Your task to perform on an android device: Go to Maps Image 0: 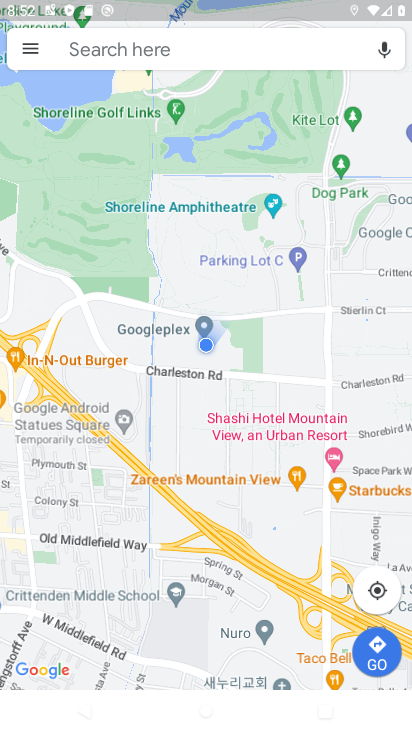
Step 0: press home button
Your task to perform on an android device: Go to Maps Image 1: 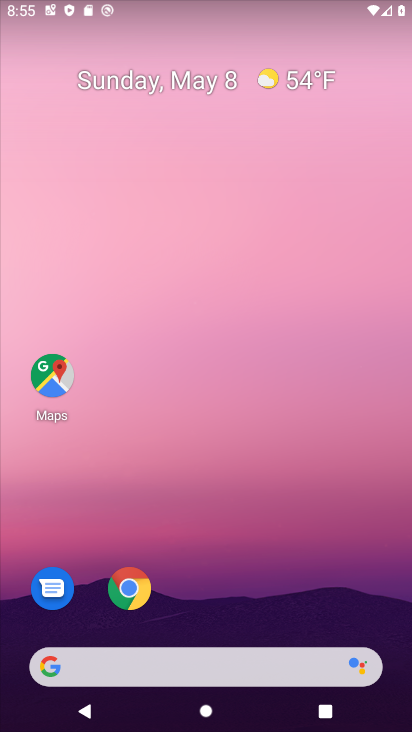
Step 1: click (39, 377)
Your task to perform on an android device: Go to Maps Image 2: 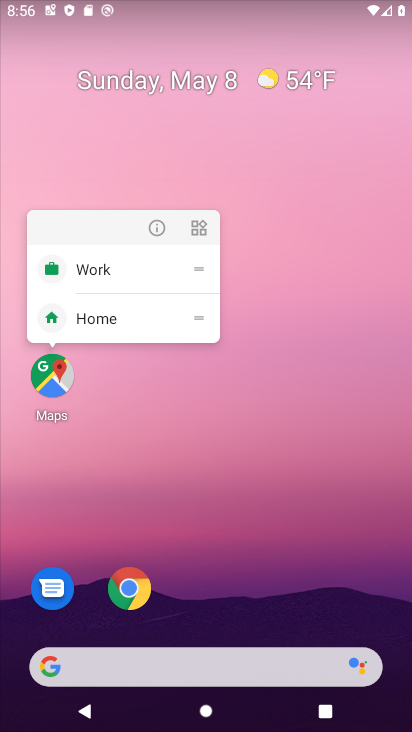
Step 2: click (160, 231)
Your task to perform on an android device: Go to Maps Image 3: 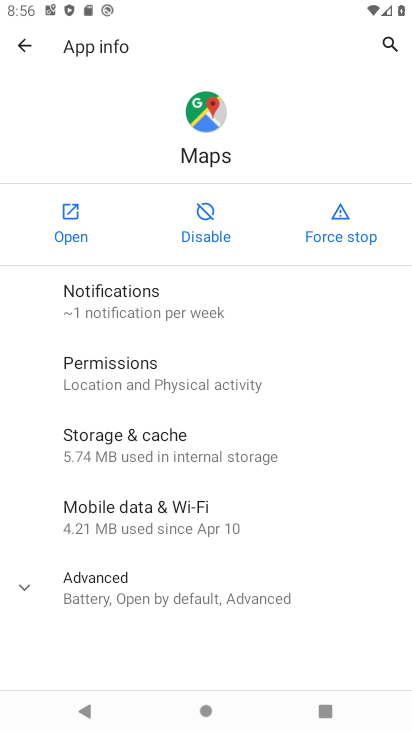
Step 3: click (69, 221)
Your task to perform on an android device: Go to Maps Image 4: 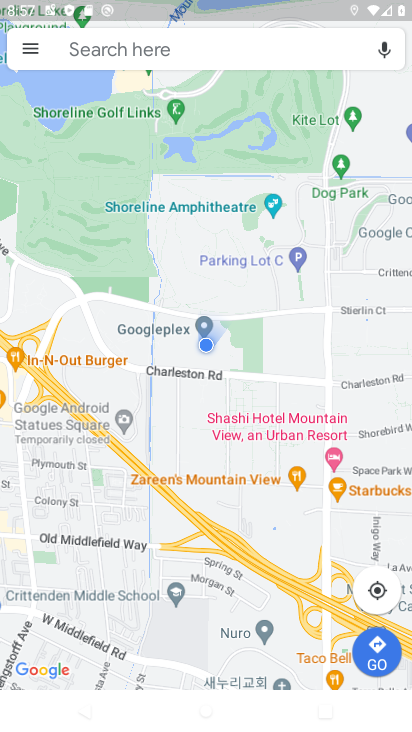
Step 4: task complete